Your task to perform on an android device: Go to battery settings Image 0: 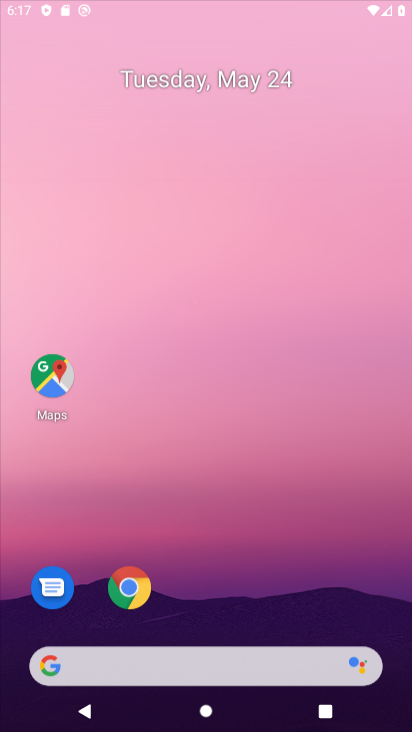
Step 0: click (277, 49)
Your task to perform on an android device: Go to battery settings Image 1: 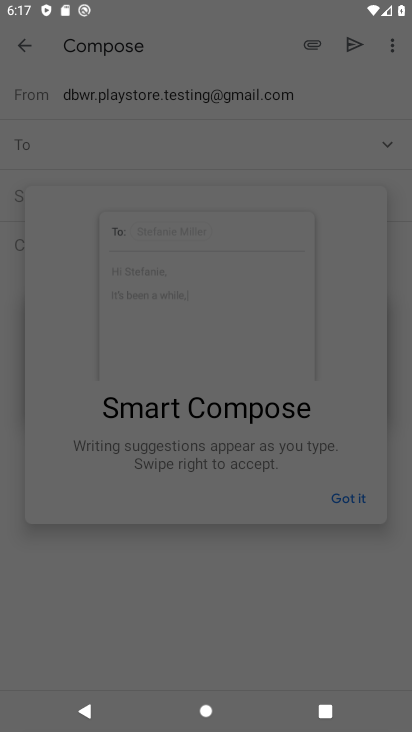
Step 1: press home button
Your task to perform on an android device: Go to battery settings Image 2: 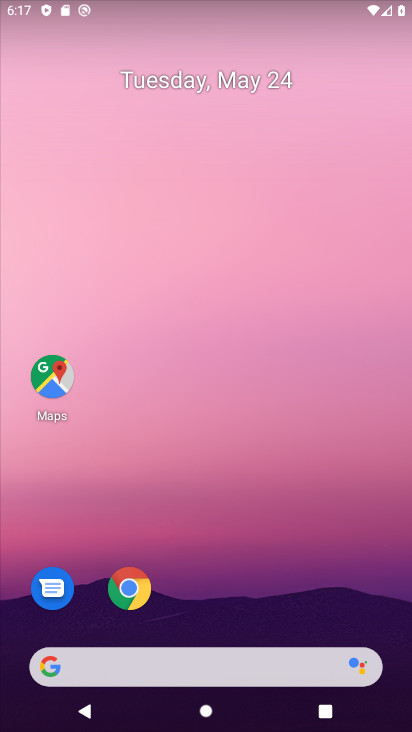
Step 2: drag from (235, 675) to (272, 13)
Your task to perform on an android device: Go to battery settings Image 3: 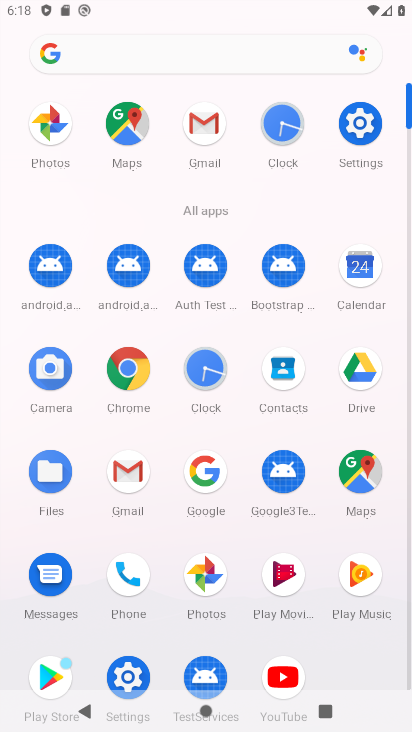
Step 3: click (369, 114)
Your task to perform on an android device: Go to battery settings Image 4: 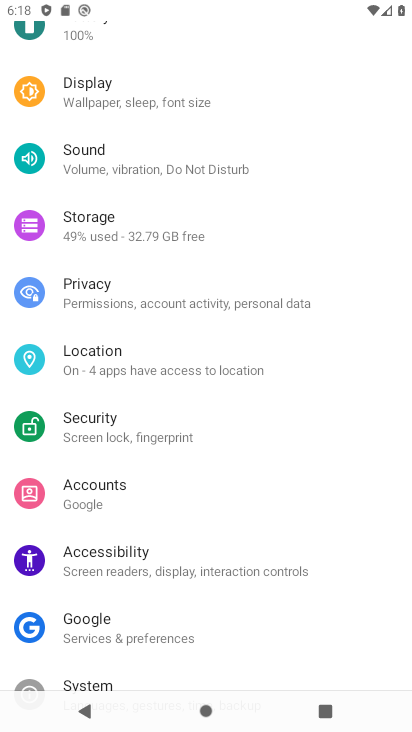
Step 4: drag from (98, 156) to (158, 621)
Your task to perform on an android device: Go to battery settings Image 5: 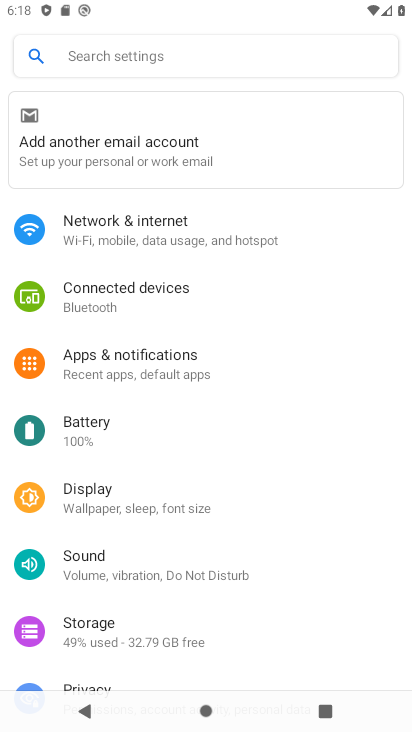
Step 5: click (124, 421)
Your task to perform on an android device: Go to battery settings Image 6: 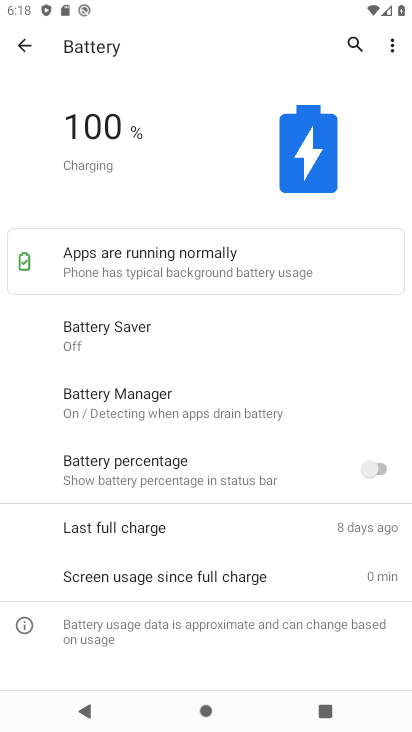
Step 6: task complete